Your task to perform on an android device: Show me productivity apps on the Play Store Image 0: 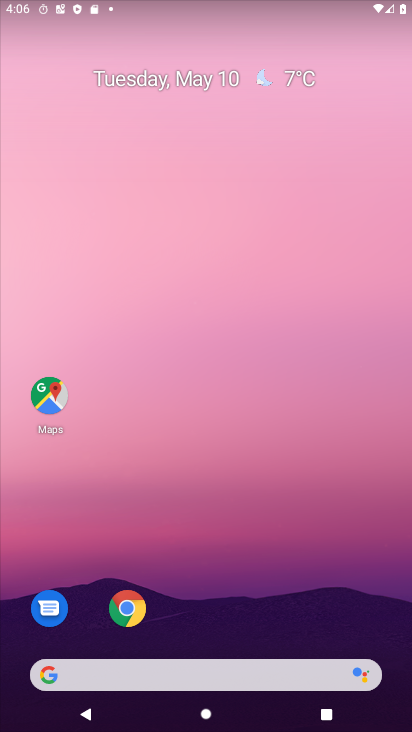
Step 0: drag from (346, 616) to (295, 18)
Your task to perform on an android device: Show me productivity apps on the Play Store Image 1: 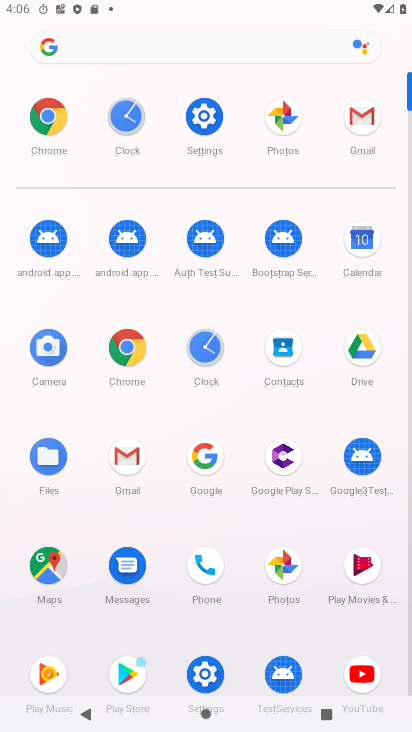
Step 1: click (125, 662)
Your task to perform on an android device: Show me productivity apps on the Play Store Image 2: 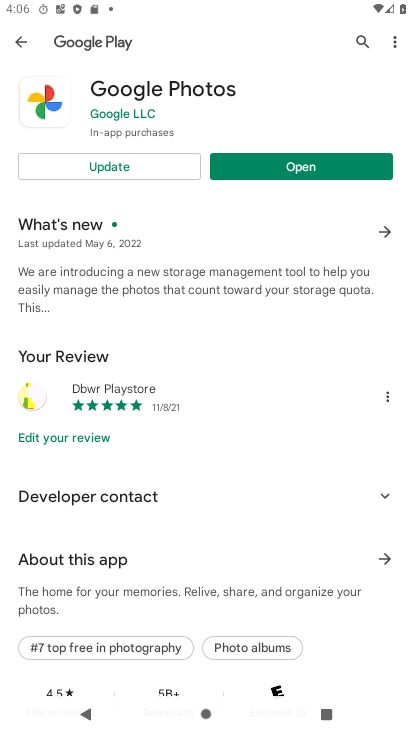
Step 2: click (20, 45)
Your task to perform on an android device: Show me productivity apps on the Play Store Image 3: 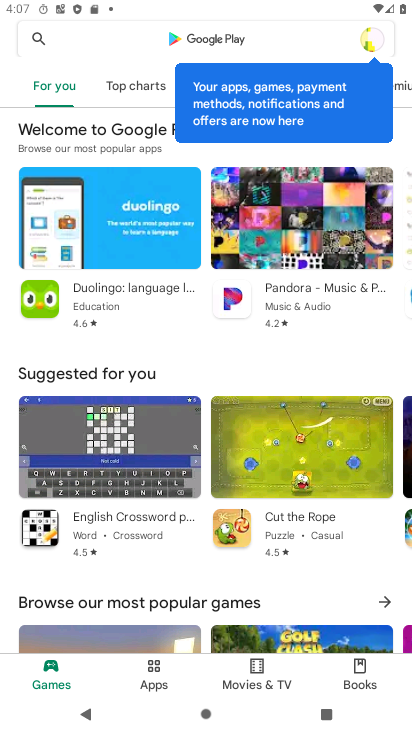
Step 3: click (151, 674)
Your task to perform on an android device: Show me productivity apps on the Play Store Image 4: 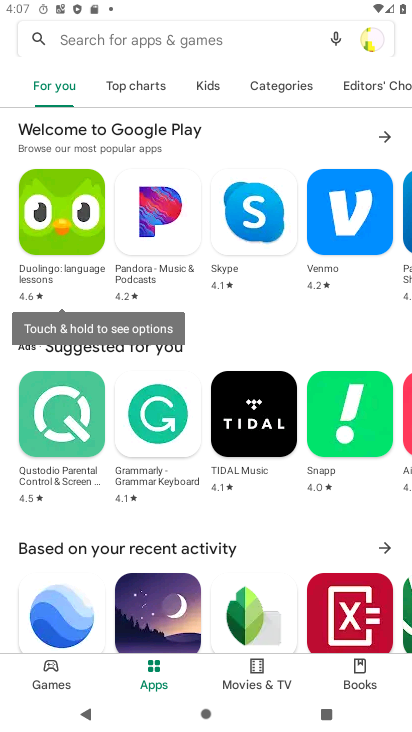
Step 4: click (292, 81)
Your task to perform on an android device: Show me productivity apps on the Play Store Image 5: 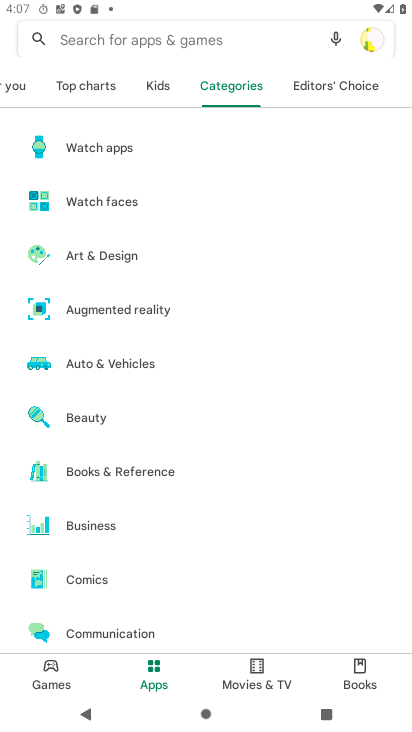
Step 5: drag from (216, 531) to (203, 65)
Your task to perform on an android device: Show me productivity apps on the Play Store Image 6: 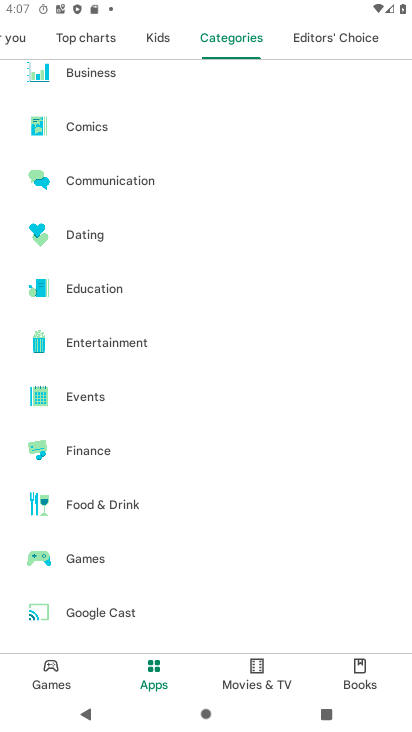
Step 6: drag from (187, 569) to (164, 167)
Your task to perform on an android device: Show me productivity apps on the Play Store Image 7: 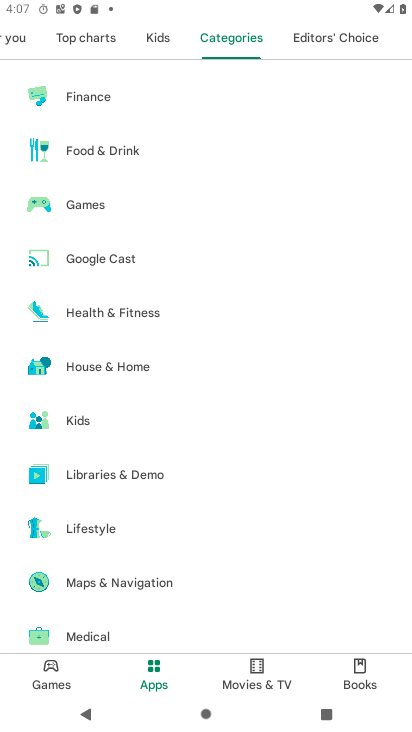
Step 7: drag from (183, 526) to (132, 177)
Your task to perform on an android device: Show me productivity apps on the Play Store Image 8: 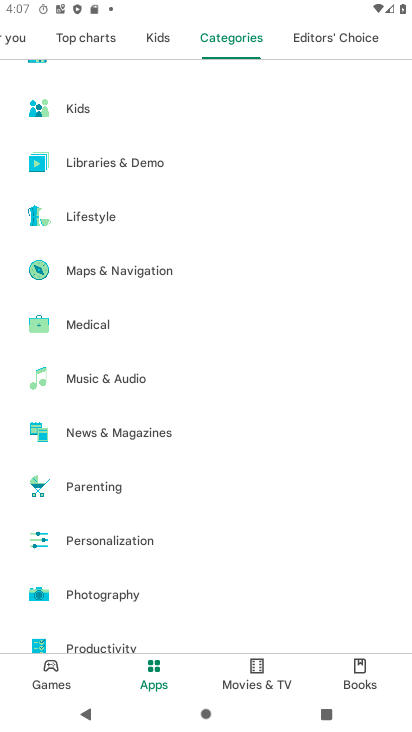
Step 8: drag from (195, 583) to (167, 363)
Your task to perform on an android device: Show me productivity apps on the Play Store Image 9: 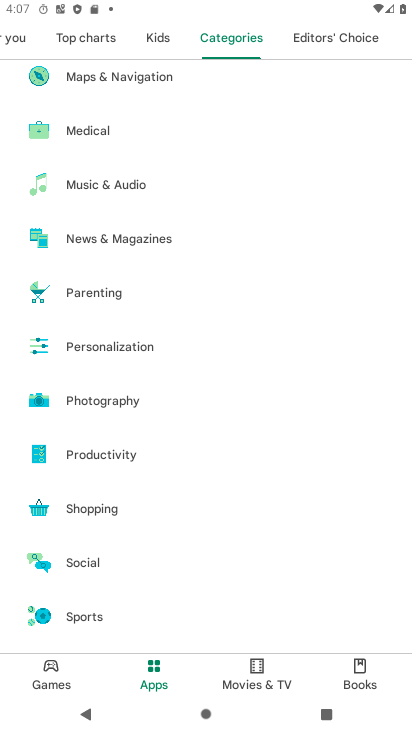
Step 9: click (109, 458)
Your task to perform on an android device: Show me productivity apps on the Play Store Image 10: 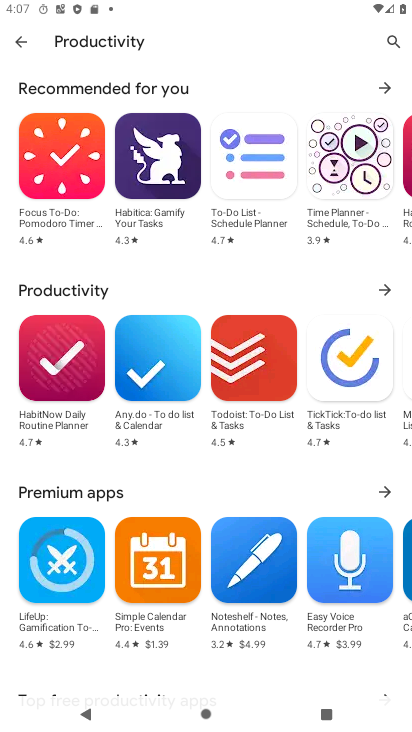
Step 10: task complete